Your task to perform on an android device: Open the calendar and show me this week's events? Image 0: 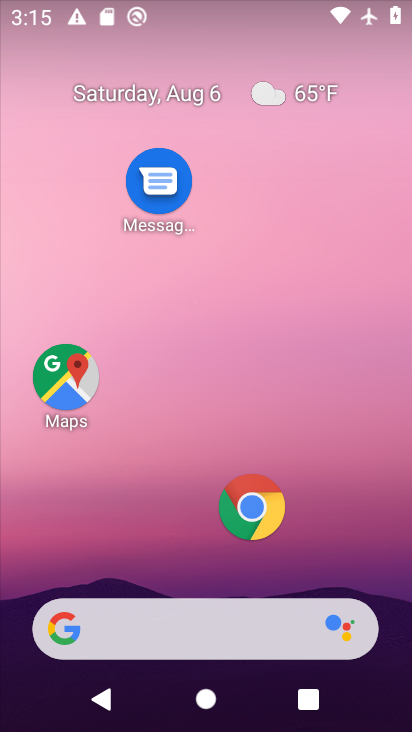
Step 0: drag from (155, 529) to (158, 2)
Your task to perform on an android device: Open the calendar and show me this week's events? Image 1: 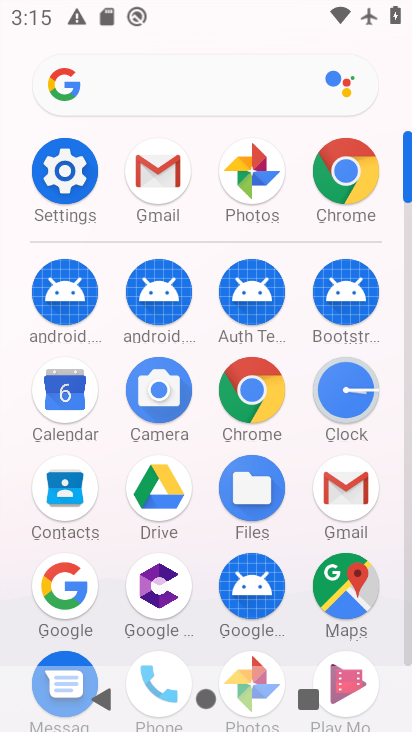
Step 1: click (80, 405)
Your task to perform on an android device: Open the calendar and show me this week's events? Image 2: 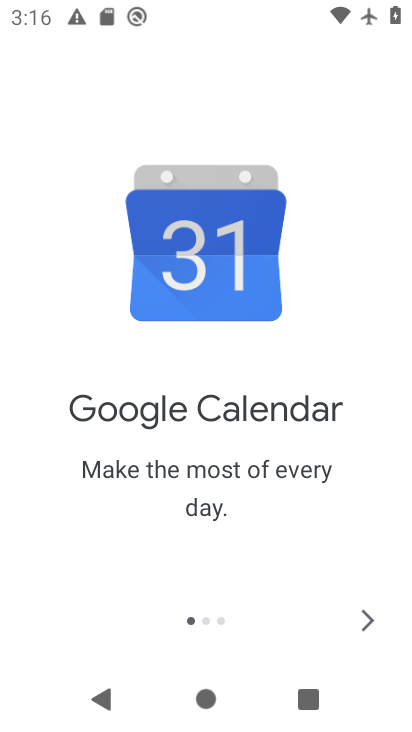
Step 2: click (364, 618)
Your task to perform on an android device: Open the calendar and show me this week's events? Image 3: 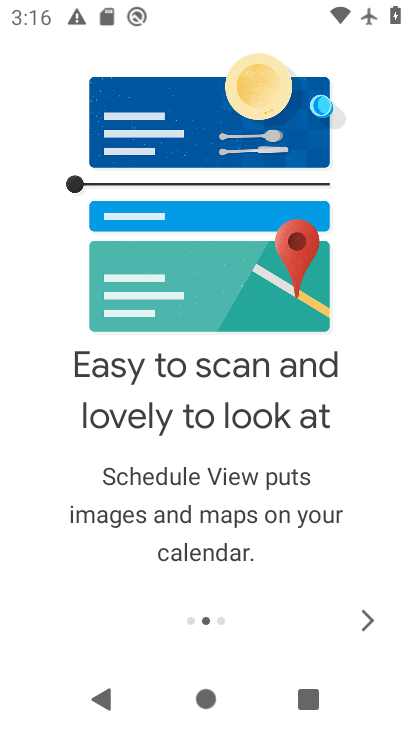
Step 3: click (366, 615)
Your task to perform on an android device: Open the calendar and show me this week's events? Image 4: 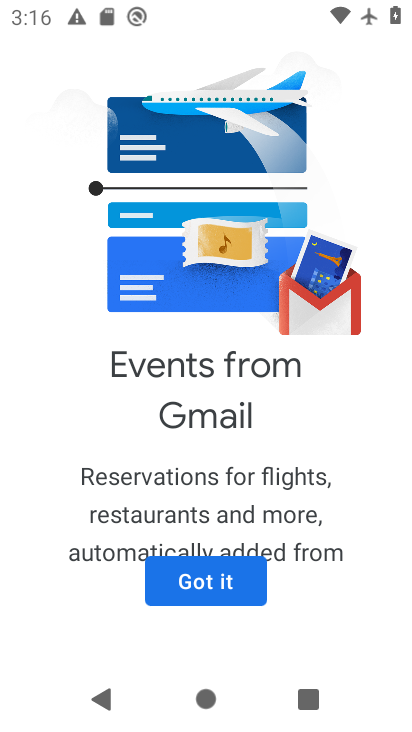
Step 4: click (216, 591)
Your task to perform on an android device: Open the calendar and show me this week's events? Image 5: 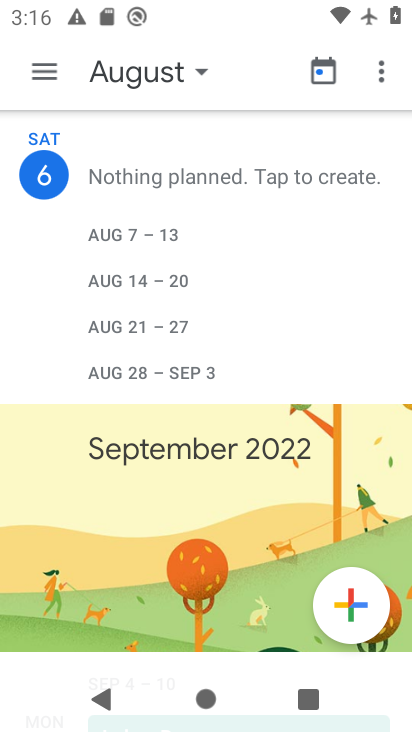
Step 5: click (38, 67)
Your task to perform on an android device: Open the calendar and show me this week's events? Image 6: 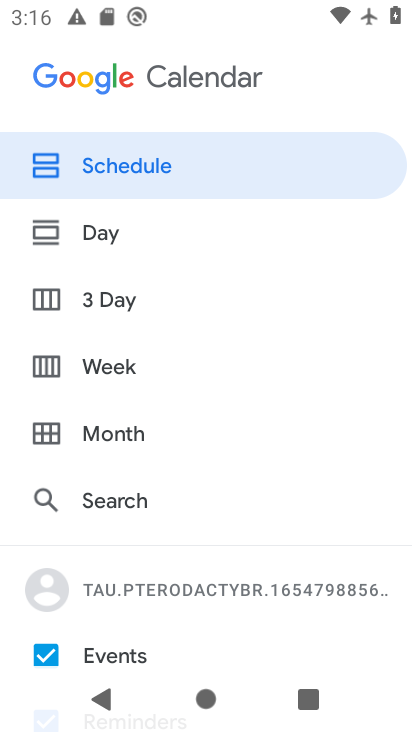
Step 6: drag from (151, 532) to (228, 114)
Your task to perform on an android device: Open the calendar and show me this week's events? Image 7: 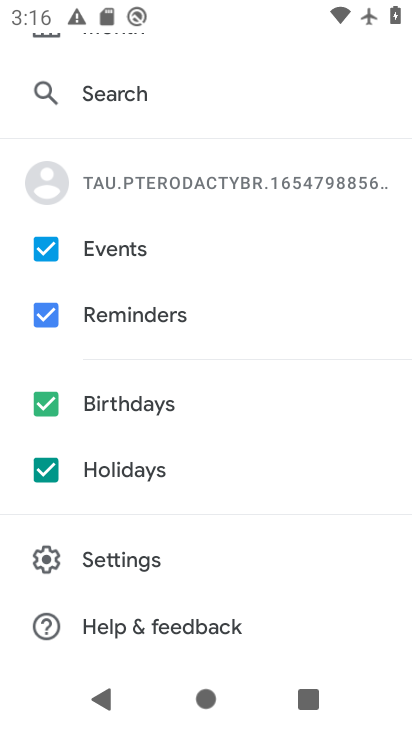
Step 7: click (102, 472)
Your task to perform on an android device: Open the calendar and show me this week's events? Image 8: 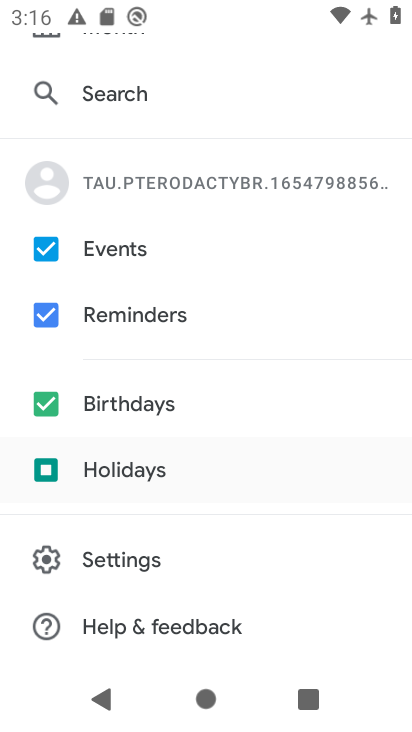
Step 8: click (106, 414)
Your task to perform on an android device: Open the calendar and show me this week's events? Image 9: 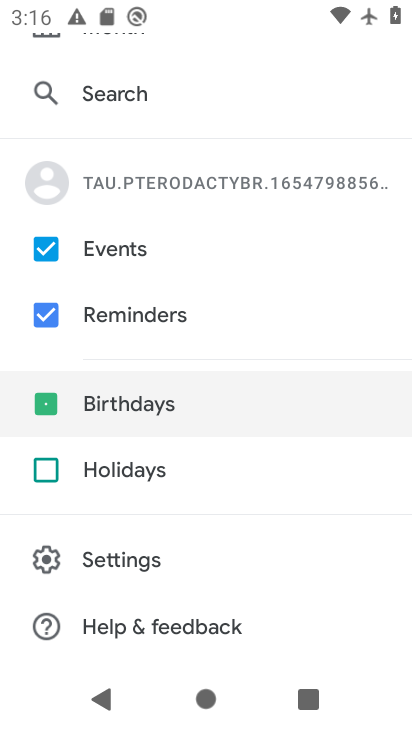
Step 9: click (128, 305)
Your task to perform on an android device: Open the calendar and show me this week's events? Image 10: 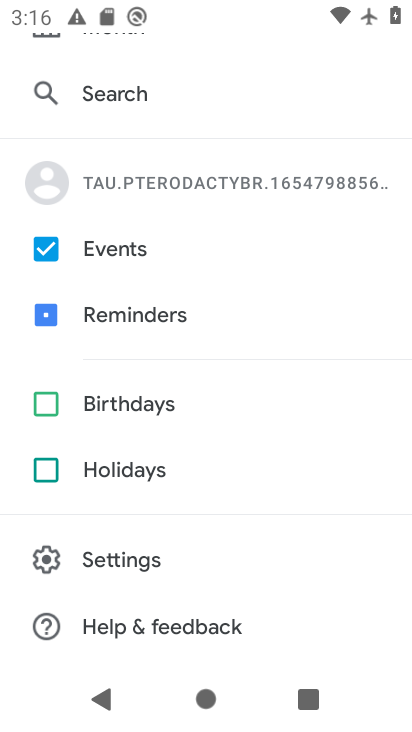
Step 10: drag from (303, 290) to (309, 565)
Your task to perform on an android device: Open the calendar and show me this week's events? Image 11: 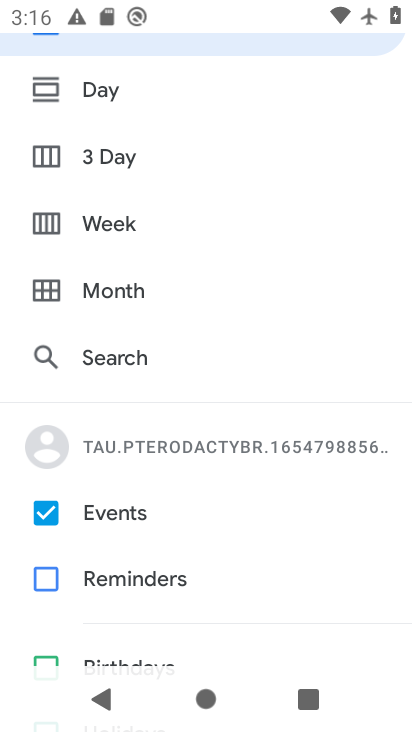
Step 11: click (113, 226)
Your task to perform on an android device: Open the calendar and show me this week's events? Image 12: 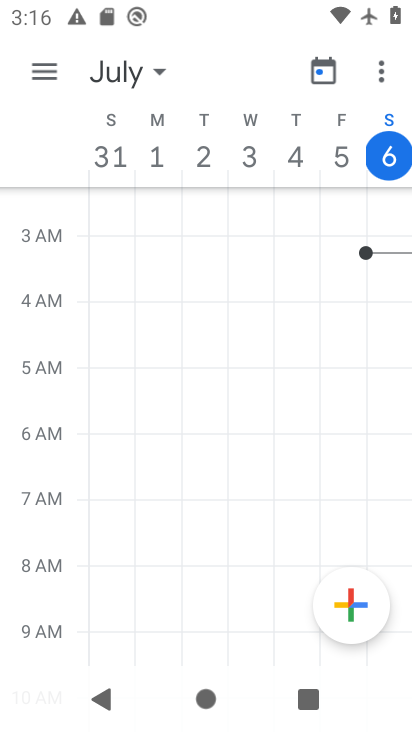
Step 12: task complete